Your task to perform on an android device: What is the capital of Italy? Image 0: 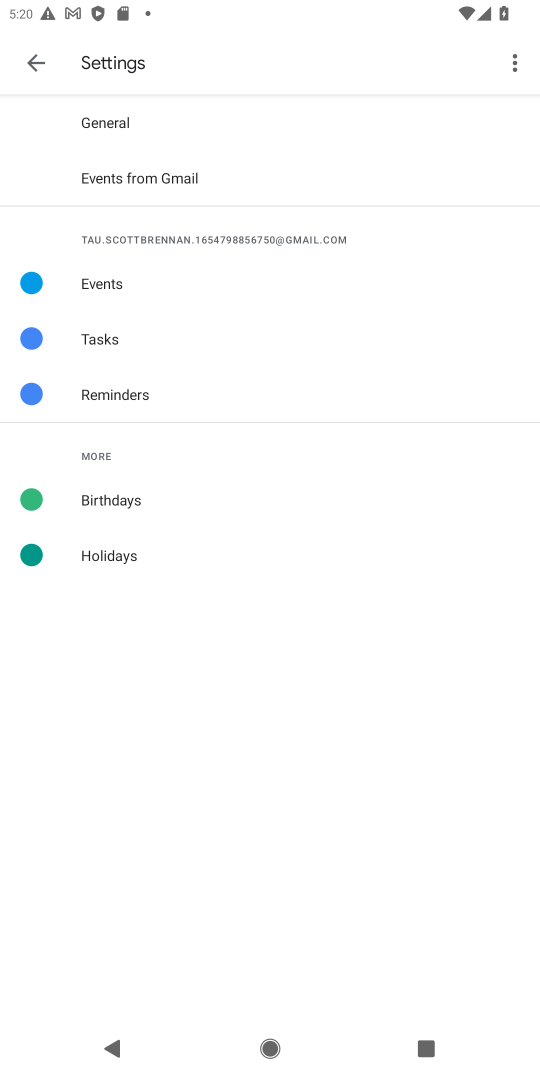
Step 0: press home button
Your task to perform on an android device: What is the capital of Italy? Image 1: 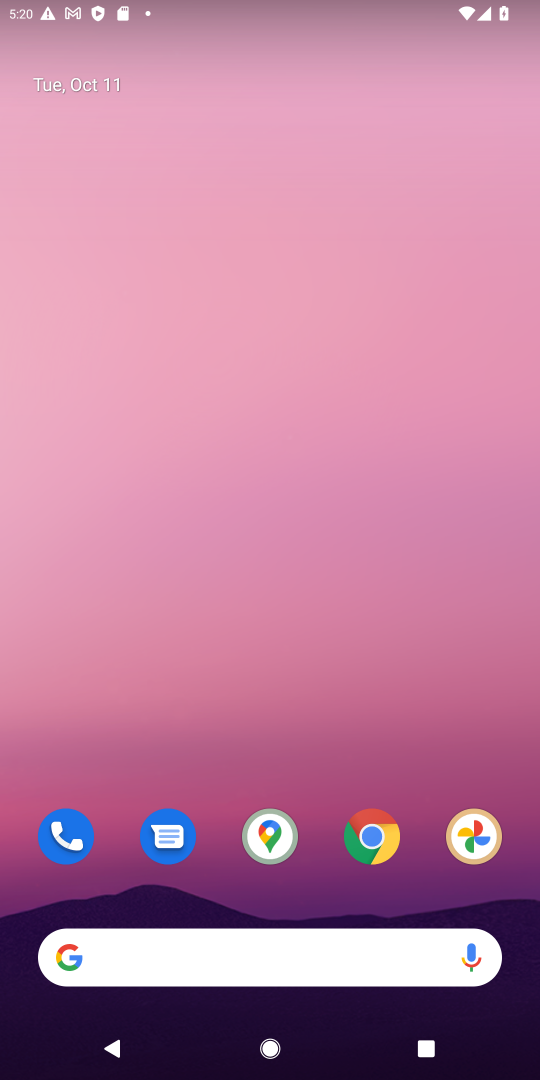
Step 1: click (375, 832)
Your task to perform on an android device: What is the capital of Italy? Image 2: 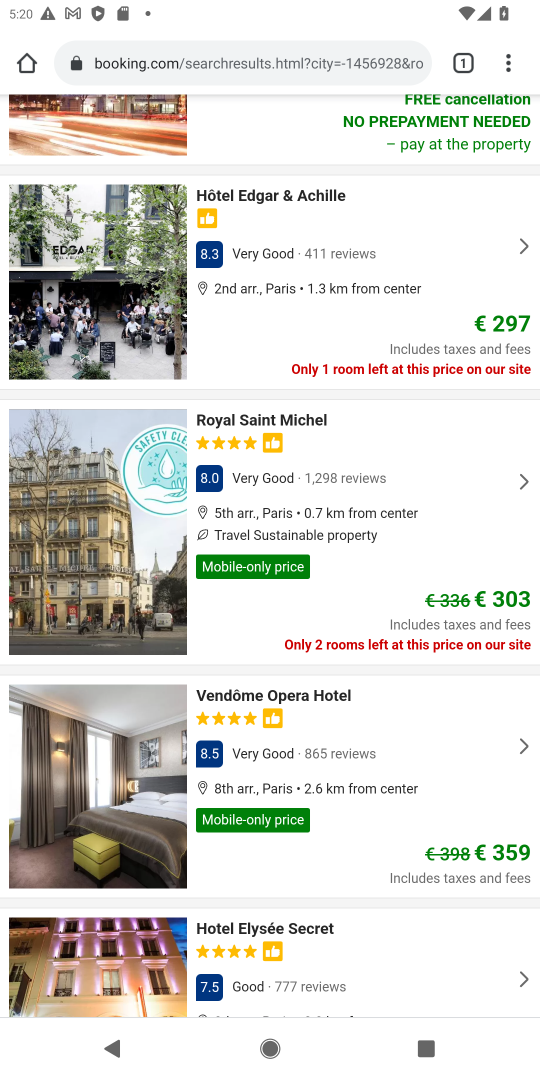
Step 2: click (238, 46)
Your task to perform on an android device: What is the capital of Italy? Image 3: 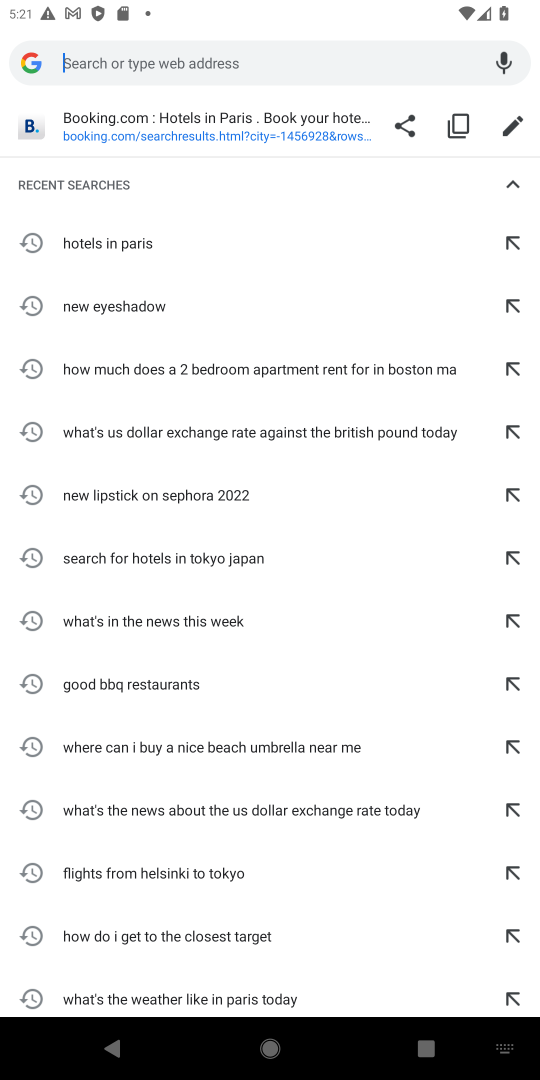
Step 3: type "capital of italy"
Your task to perform on an android device: What is the capital of Italy? Image 4: 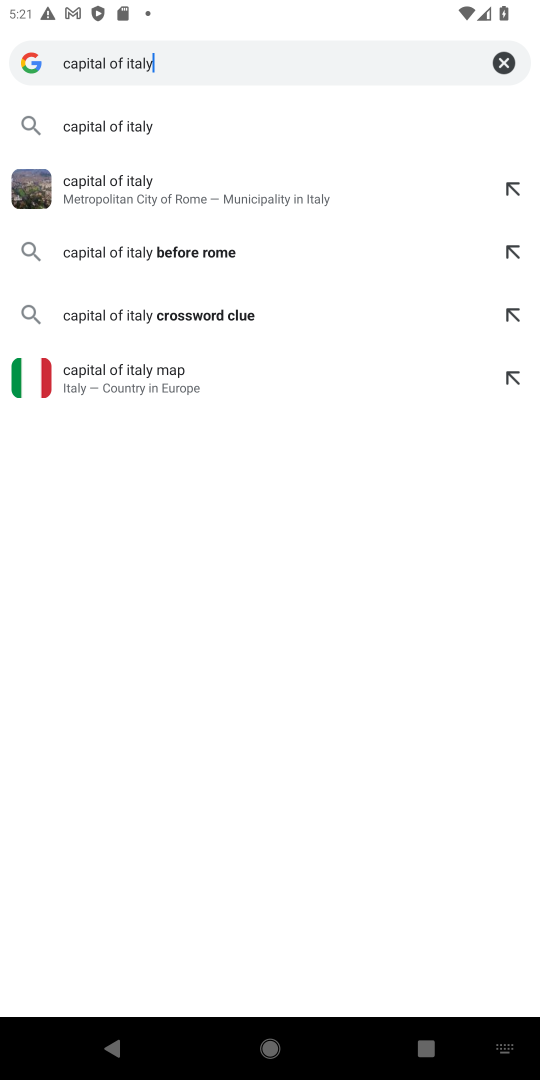
Step 4: click (105, 130)
Your task to perform on an android device: What is the capital of Italy? Image 5: 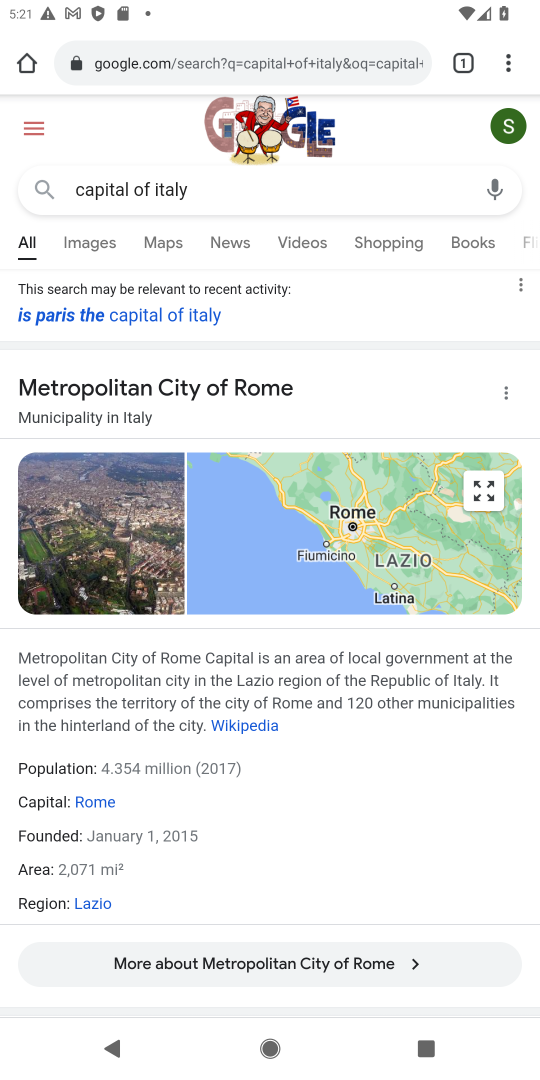
Step 5: task complete